Your task to perform on an android device: Open the calendar app, open the side menu, and click the "Day" option Image 0: 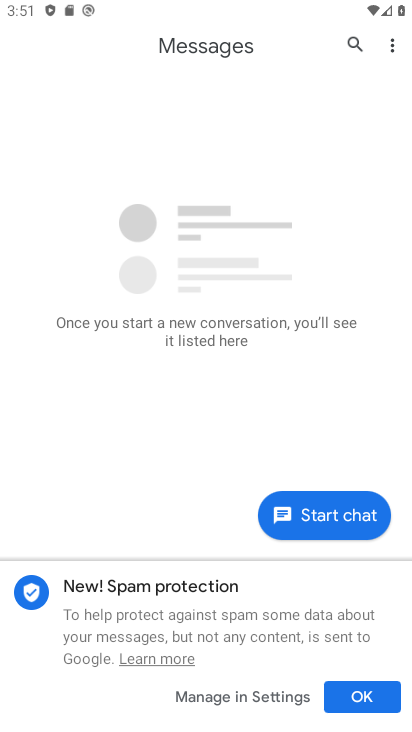
Step 0: press home button
Your task to perform on an android device: Open the calendar app, open the side menu, and click the "Day" option Image 1: 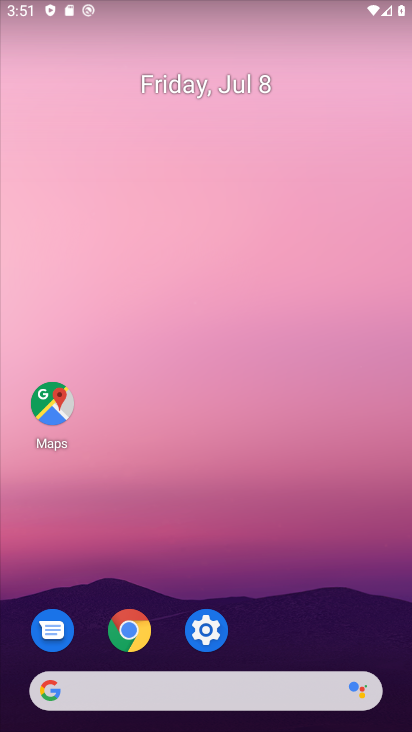
Step 1: drag from (49, 710) to (362, 147)
Your task to perform on an android device: Open the calendar app, open the side menu, and click the "Day" option Image 2: 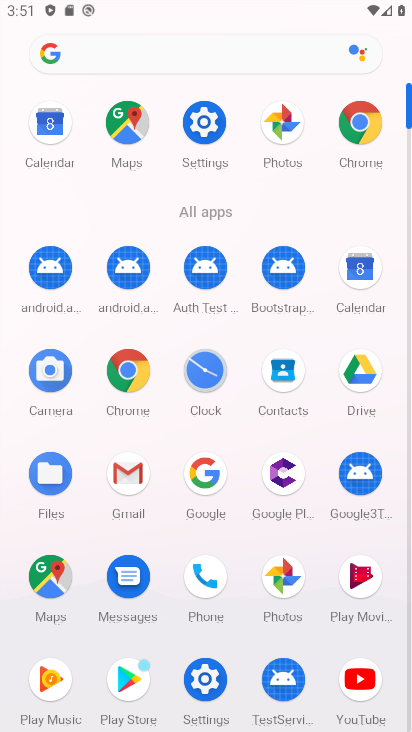
Step 2: click (356, 280)
Your task to perform on an android device: Open the calendar app, open the side menu, and click the "Day" option Image 3: 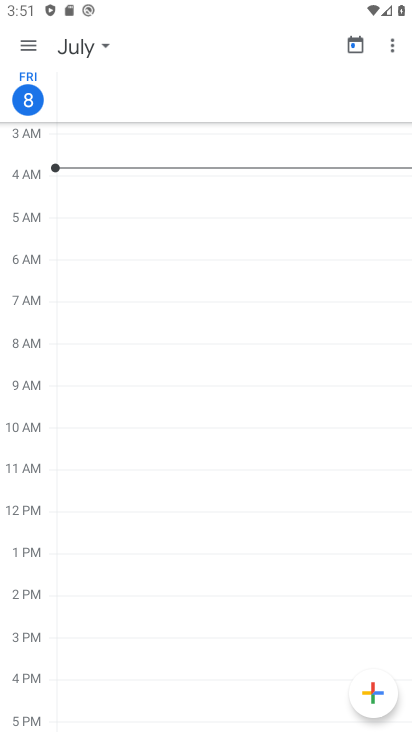
Step 3: click (30, 40)
Your task to perform on an android device: Open the calendar app, open the side menu, and click the "Day" option Image 4: 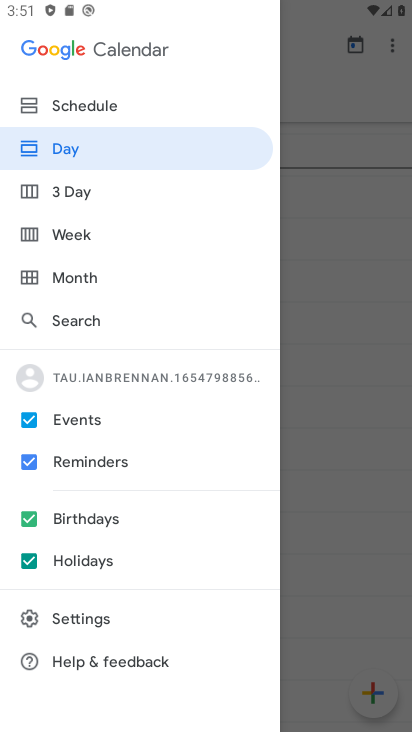
Step 4: click (94, 145)
Your task to perform on an android device: Open the calendar app, open the side menu, and click the "Day" option Image 5: 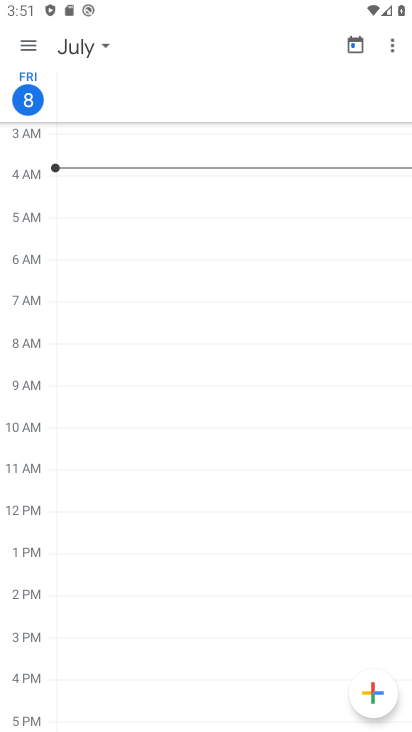
Step 5: task complete